Your task to perform on an android device: What's on my calendar tomorrow? Image 0: 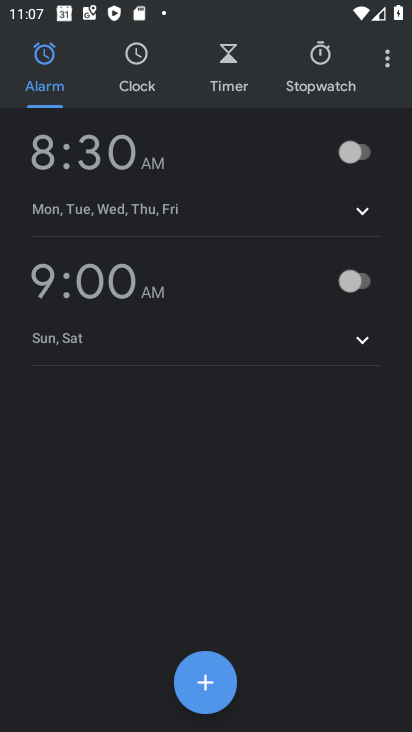
Step 0: press home button
Your task to perform on an android device: What's on my calendar tomorrow? Image 1: 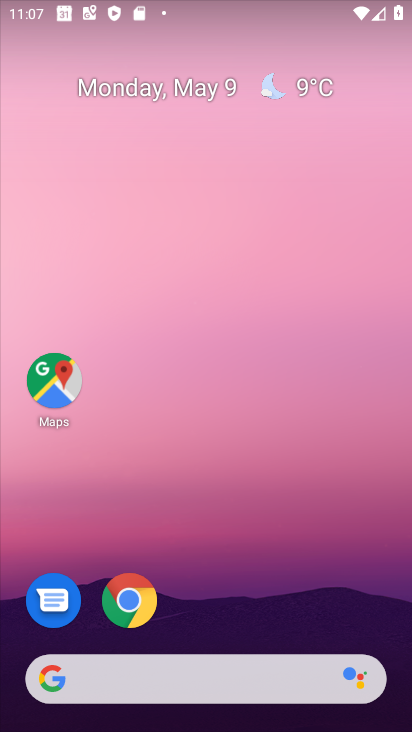
Step 1: drag from (360, 590) to (350, 176)
Your task to perform on an android device: What's on my calendar tomorrow? Image 2: 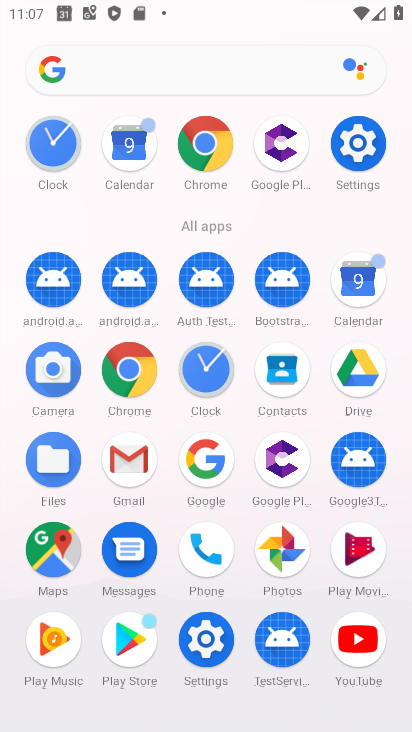
Step 2: click (360, 287)
Your task to perform on an android device: What's on my calendar tomorrow? Image 3: 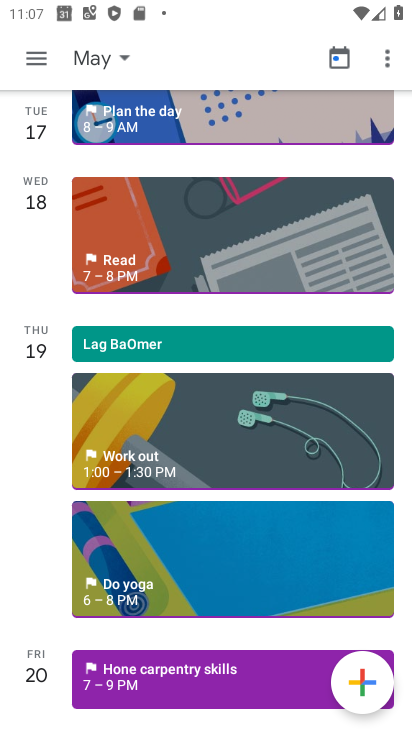
Step 3: click (76, 51)
Your task to perform on an android device: What's on my calendar tomorrow? Image 4: 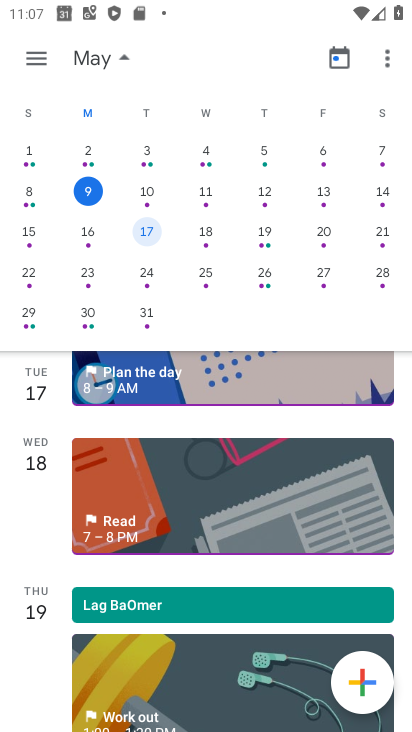
Step 4: click (151, 198)
Your task to perform on an android device: What's on my calendar tomorrow? Image 5: 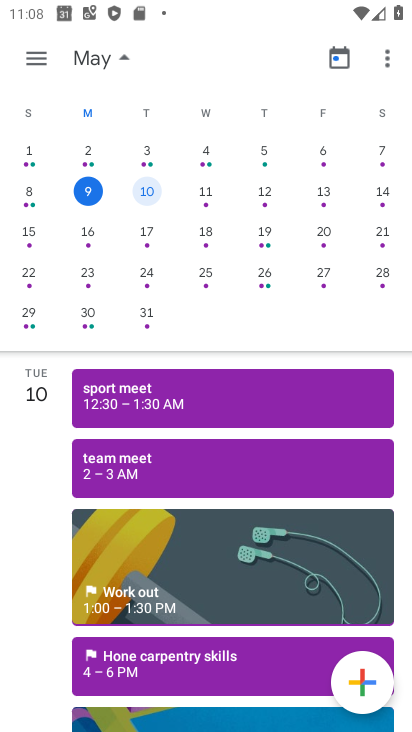
Step 5: task complete